Your task to perform on an android device: turn on wifi Image 0: 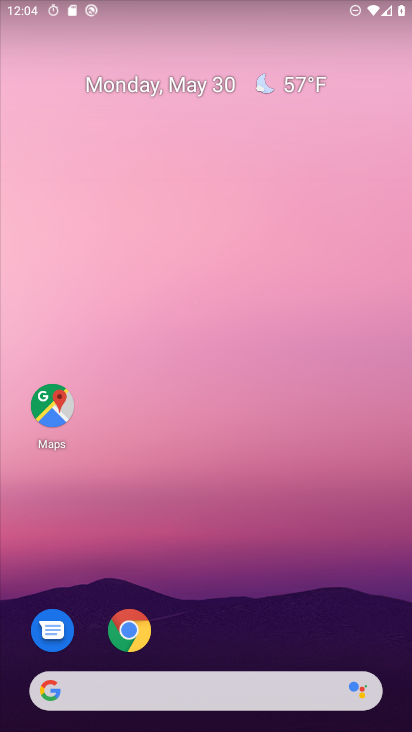
Step 0: drag from (308, 714) to (201, 192)
Your task to perform on an android device: turn on wifi Image 1: 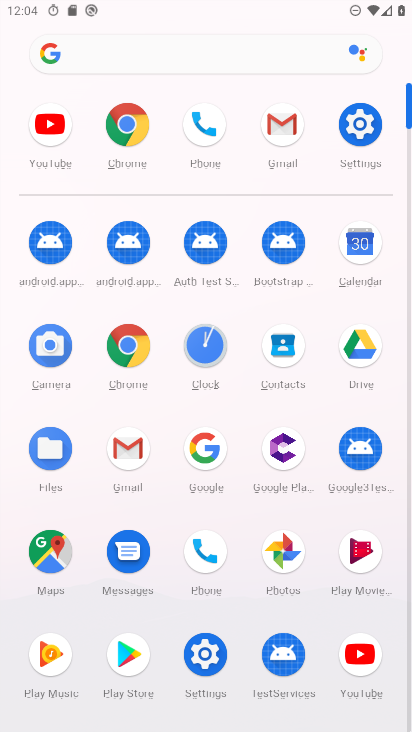
Step 1: click (361, 127)
Your task to perform on an android device: turn on wifi Image 2: 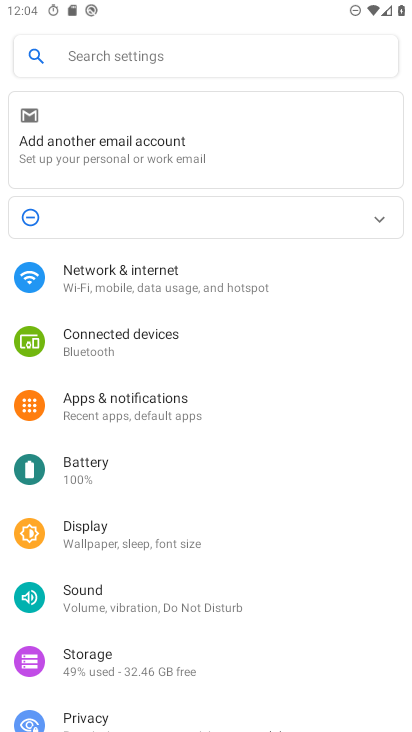
Step 2: click (162, 263)
Your task to perform on an android device: turn on wifi Image 3: 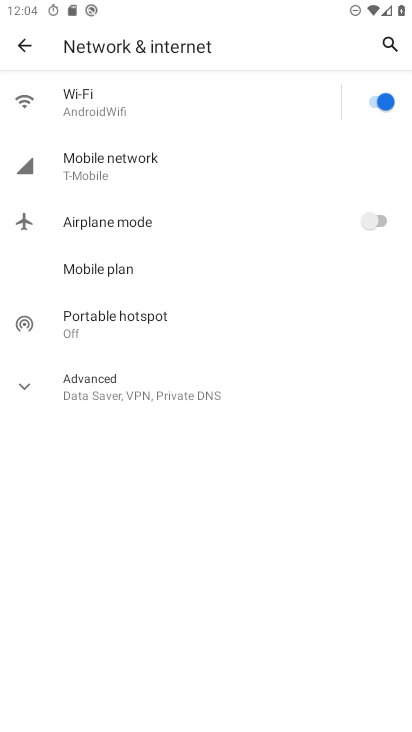
Step 3: task complete